Your task to perform on an android device: change your default location settings in chrome Image 0: 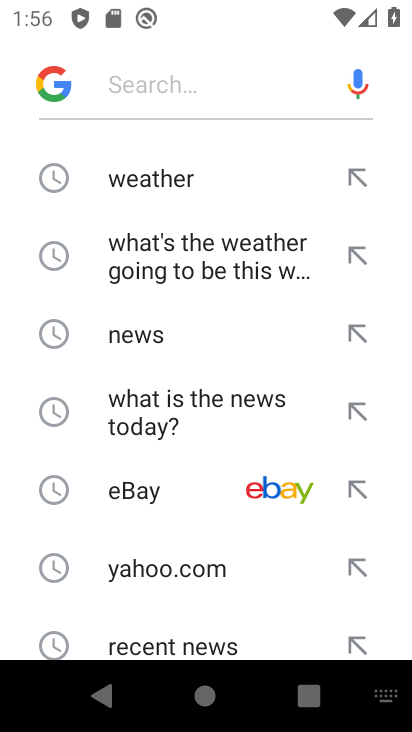
Step 0: press home button
Your task to perform on an android device: change your default location settings in chrome Image 1: 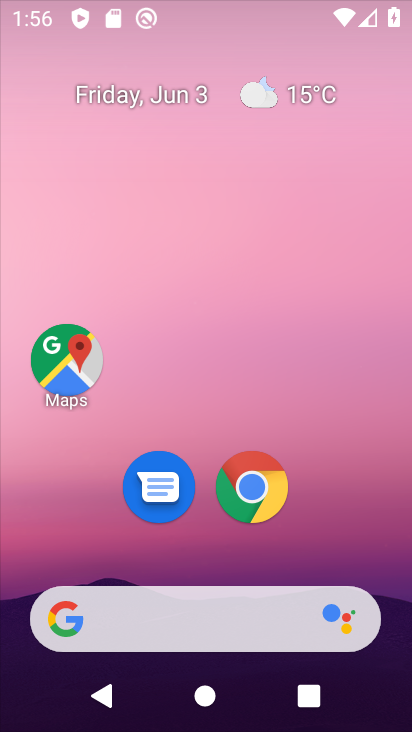
Step 1: drag from (311, 376) to (259, 40)
Your task to perform on an android device: change your default location settings in chrome Image 2: 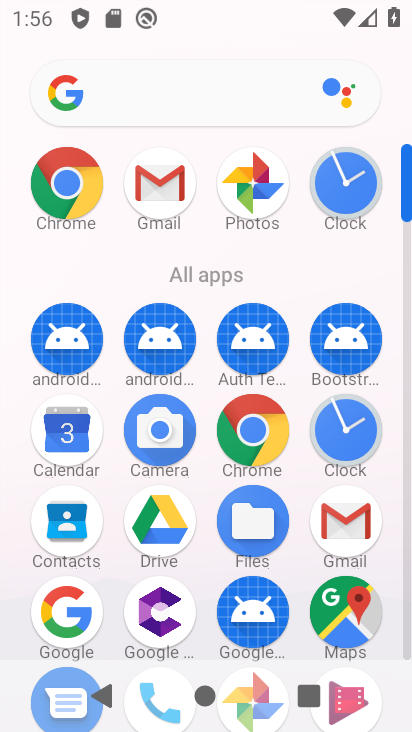
Step 2: click (261, 429)
Your task to perform on an android device: change your default location settings in chrome Image 3: 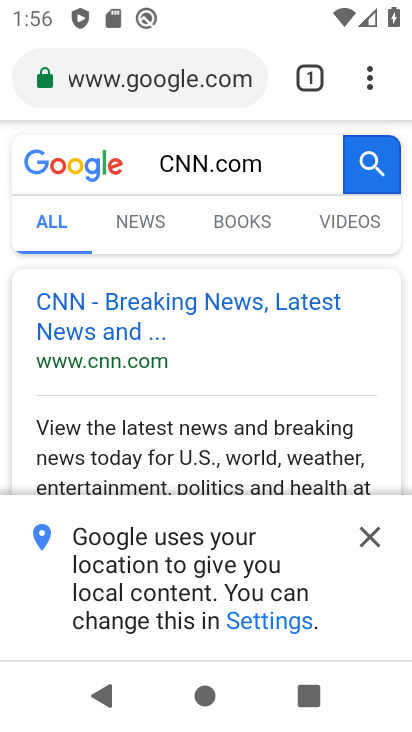
Step 3: click (368, 536)
Your task to perform on an android device: change your default location settings in chrome Image 4: 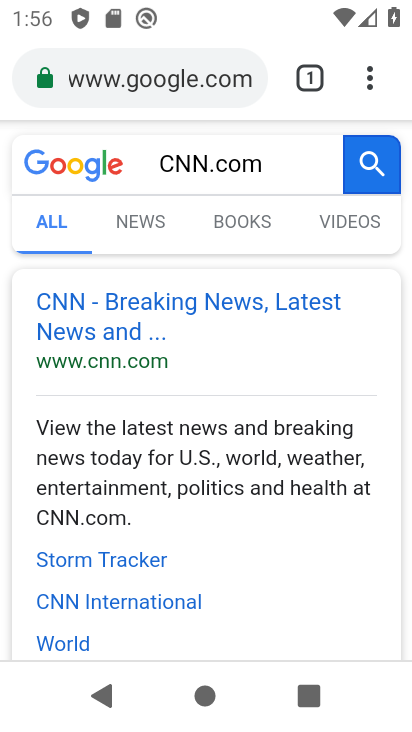
Step 4: click (367, 85)
Your task to perform on an android device: change your default location settings in chrome Image 5: 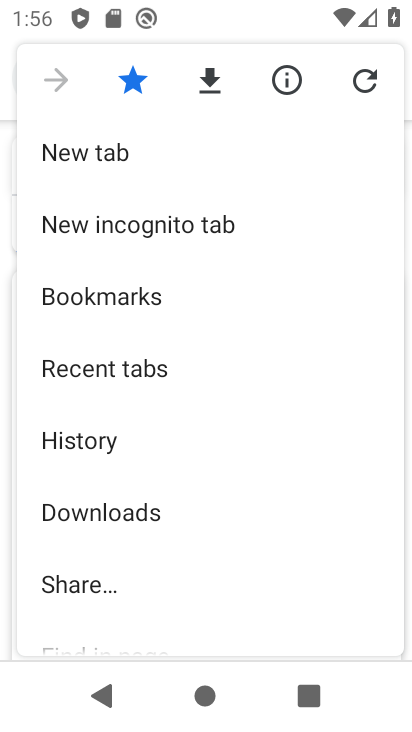
Step 5: drag from (206, 579) to (187, 83)
Your task to perform on an android device: change your default location settings in chrome Image 6: 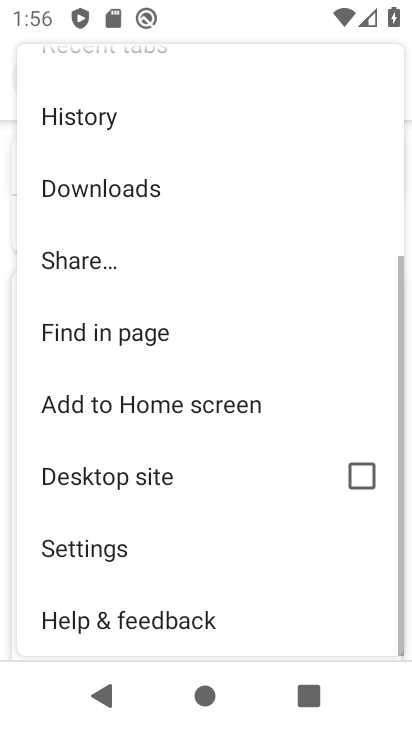
Step 6: click (161, 540)
Your task to perform on an android device: change your default location settings in chrome Image 7: 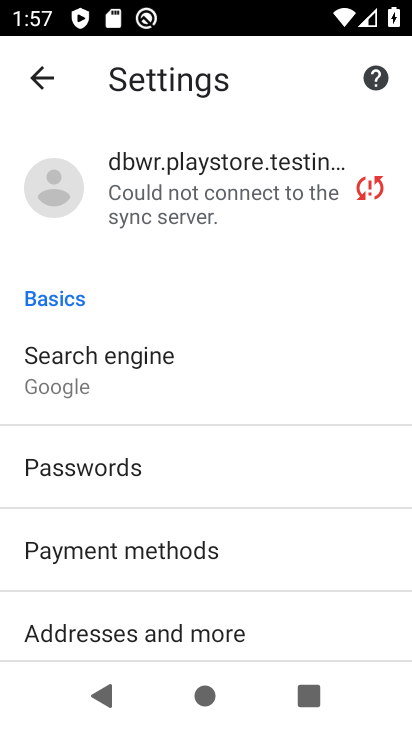
Step 7: drag from (223, 575) to (219, 116)
Your task to perform on an android device: change your default location settings in chrome Image 8: 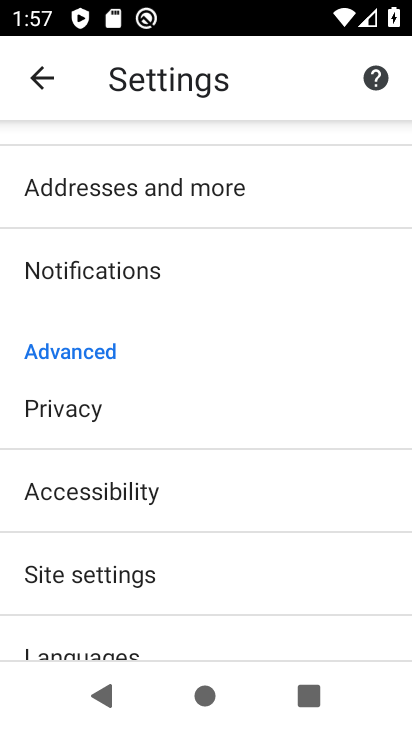
Step 8: click (159, 576)
Your task to perform on an android device: change your default location settings in chrome Image 9: 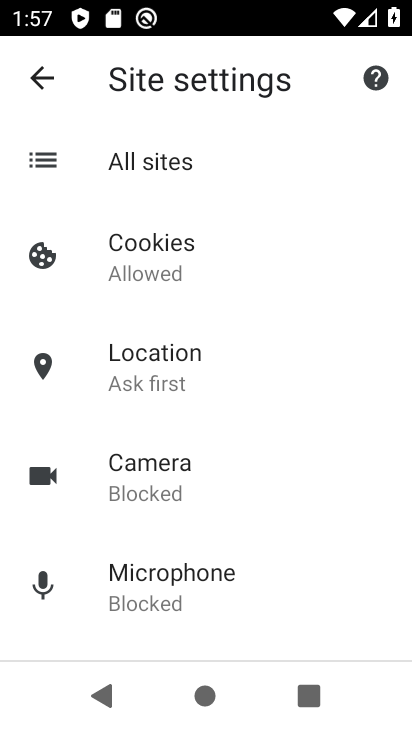
Step 9: click (194, 361)
Your task to perform on an android device: change your default location settings in chrome Image 10: 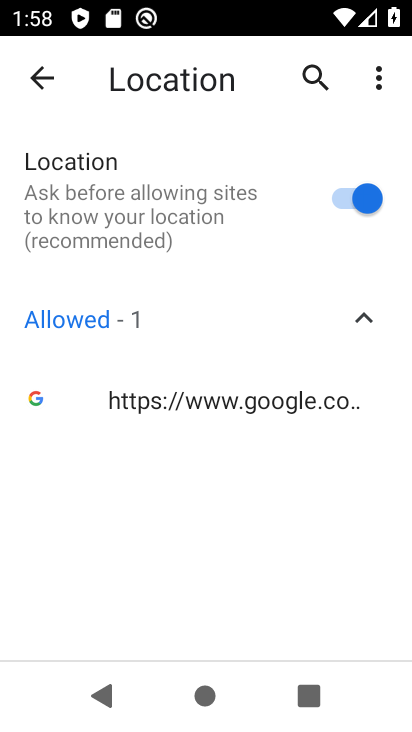
Step 10: click (358, 201)
Your task to perform on an android device: change your default location settings in chrome Image 11: 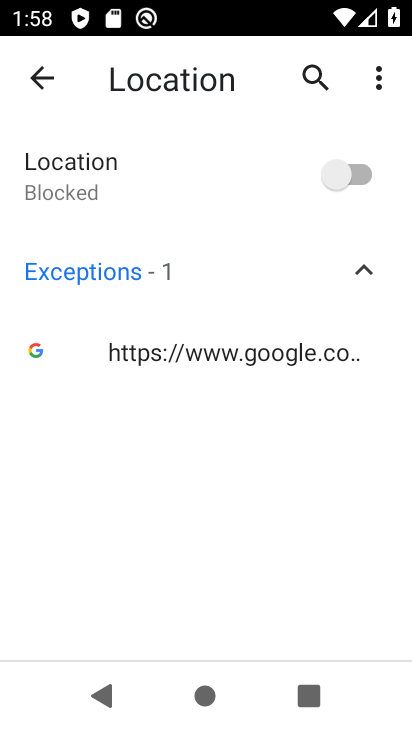
Step 11: task complete